Your task to perform on an android device: Open notification settings Image 0: 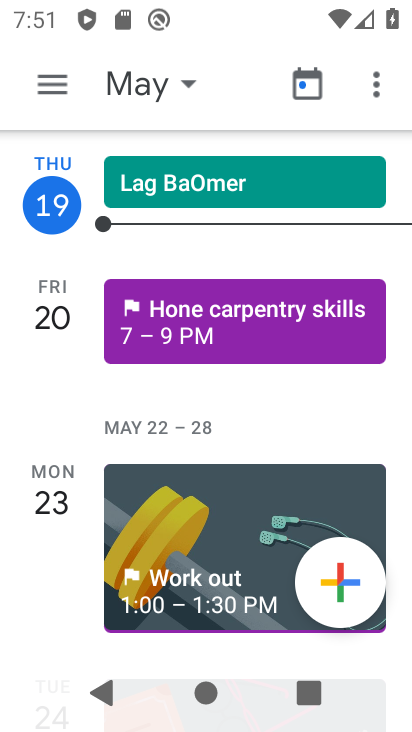
Step 0: press back button
Your task to perform on an android device: Open notification settings Image 1: 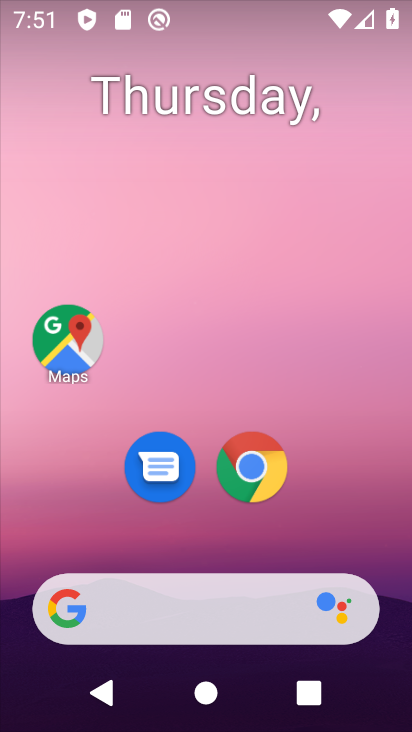
Step 1: drag from (202, 536) to (255, 57)
Your task to perform on an android device: Open notification settings Image 2: 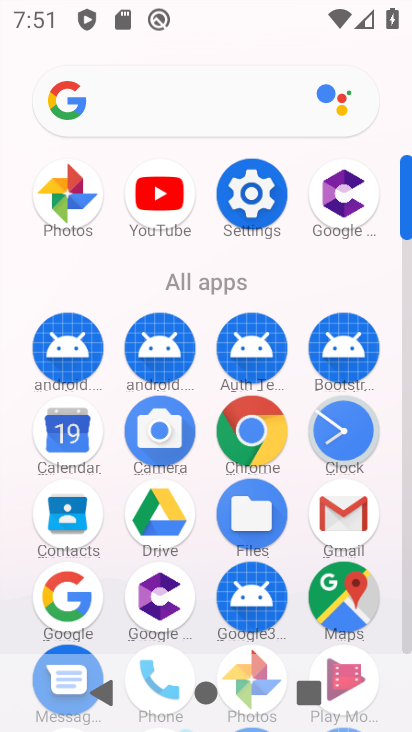
Step 2: click (261, 175)
Your task to perform on an android device: Open notification settings Image 3: 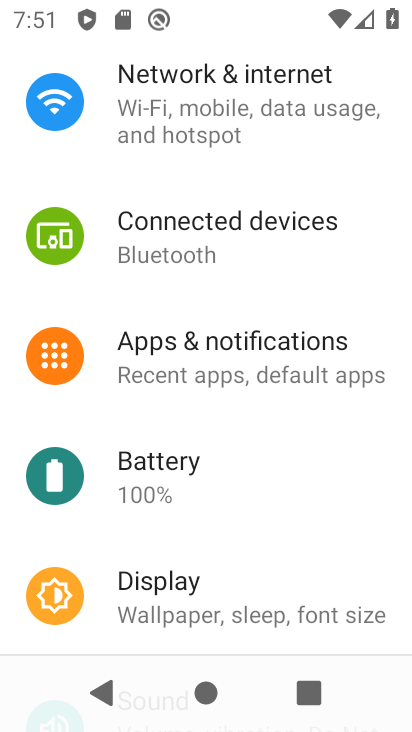
Step 3: click (197, 360)
Your task to perform on an android device: Open notification settings Image 4: 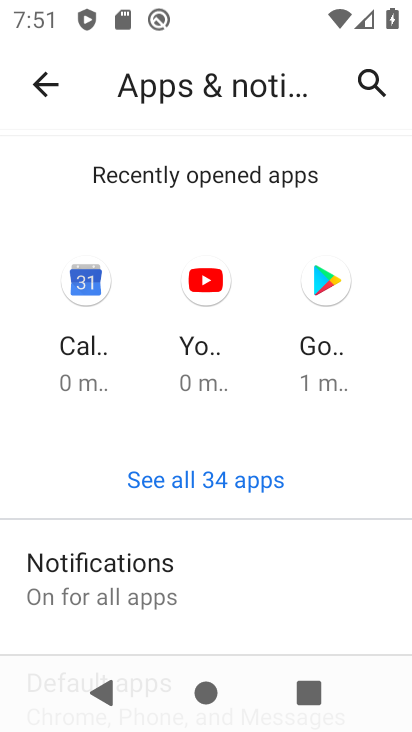
Step 4: task complete